Your task to perform on an android device: What's the weather today? Image 0: 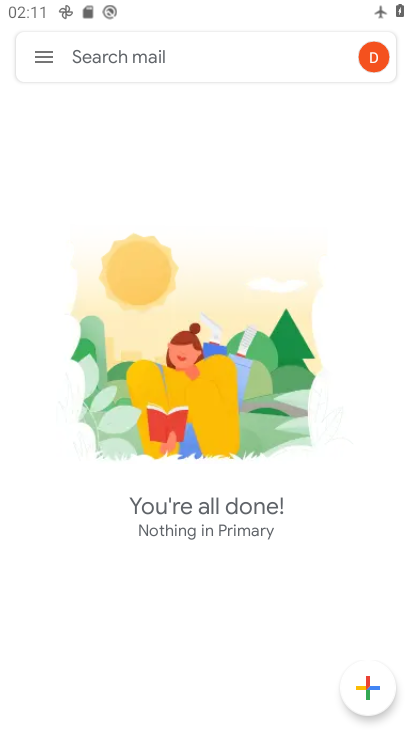
Step 0: press home button
Your task to perform on an android device: What's the weather today? Image 1: 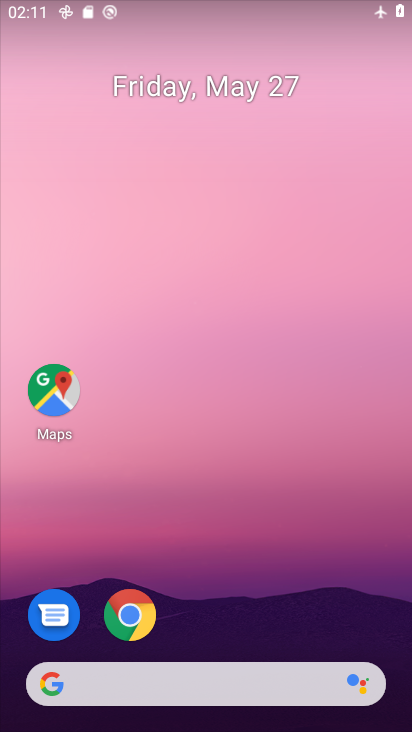
Step 1: click (174, 674)
Your task to perform on an android device: What's the weather today? Image 2: 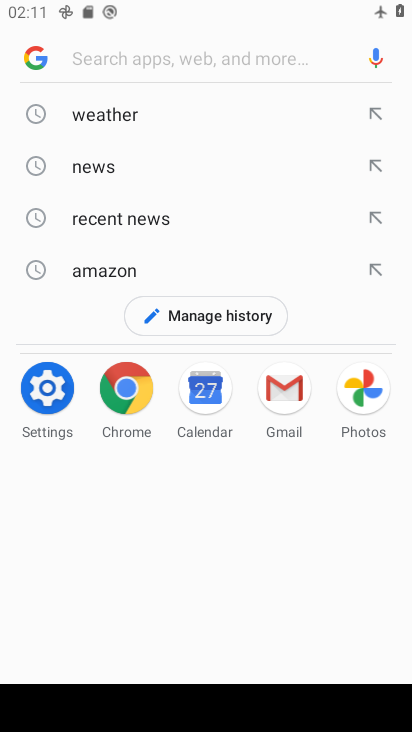
Step 2: click (136, 116)
Your task to perform on an android device: What's the weather today? Image 3: 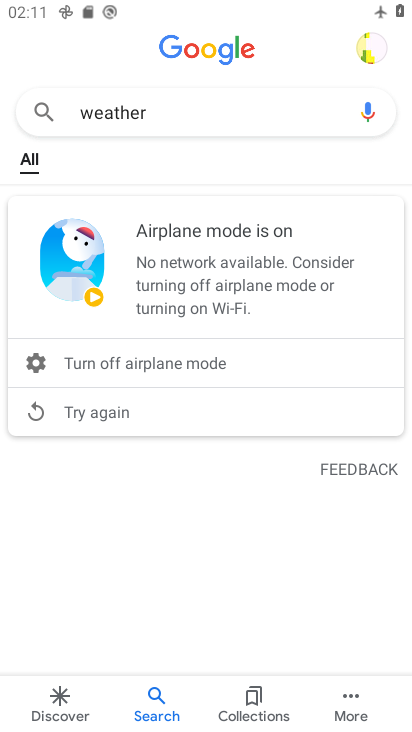
Step 3: task complete